Your task to perform on an android device: turn on translation in the chrome app Image 0: 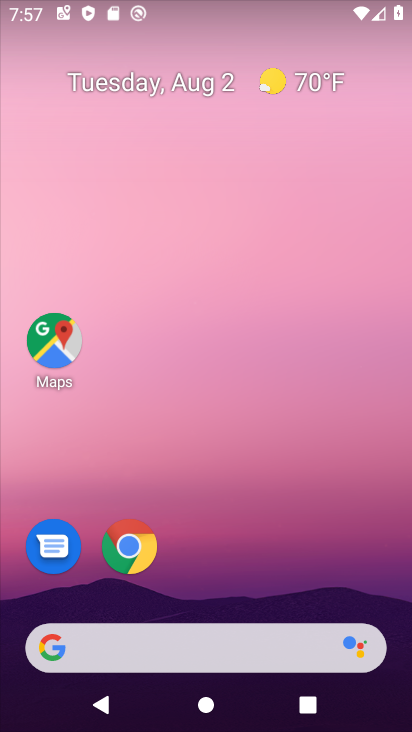
Step 0: click (135, 562)
Your task to perform on an android device: turn on translation in the chrome app Image 1: 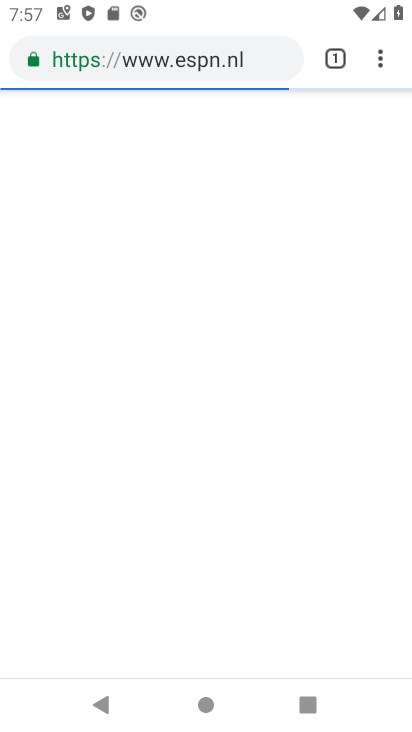
Step 1: click (382, 53)
Your task to perform on an android device: turn on translation in the chrome app Image 2: 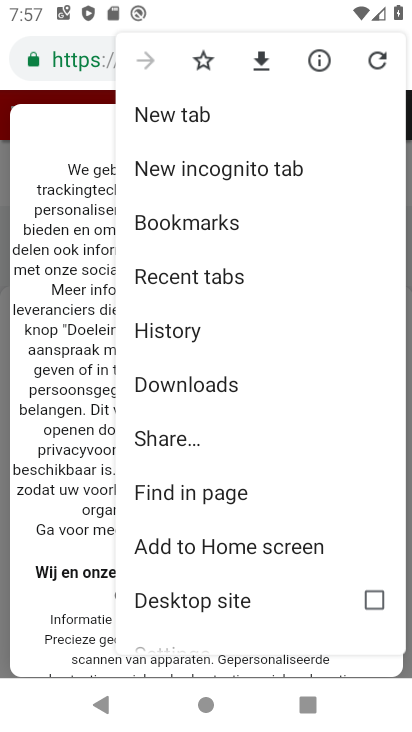
Step 2: drag from (218, 588) to (237, 286)
Your task to perform on an android device: turn on translation in the chrome app Image 3: 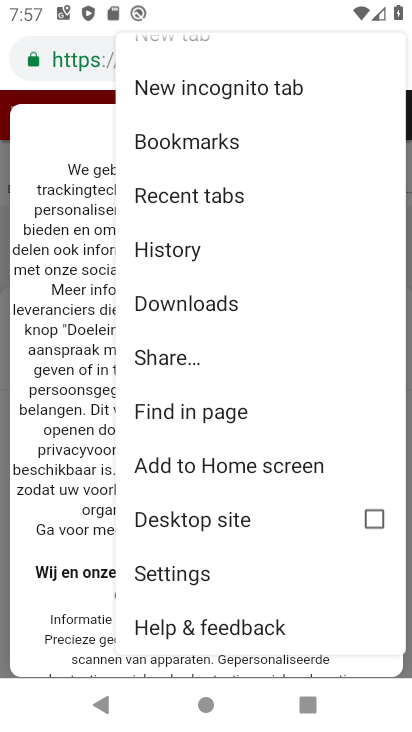
Step 3: click (201, 578)
Your task to perform on an android device: turn on translation in the chrome app Image 4: 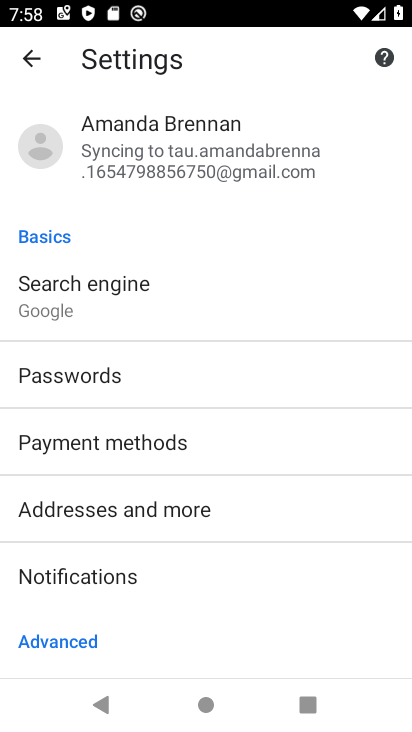
Step 4: drag from (117, 469) to (159, 220)
Your task to perform on an android device: turn on translation in the chrome app Image 5: 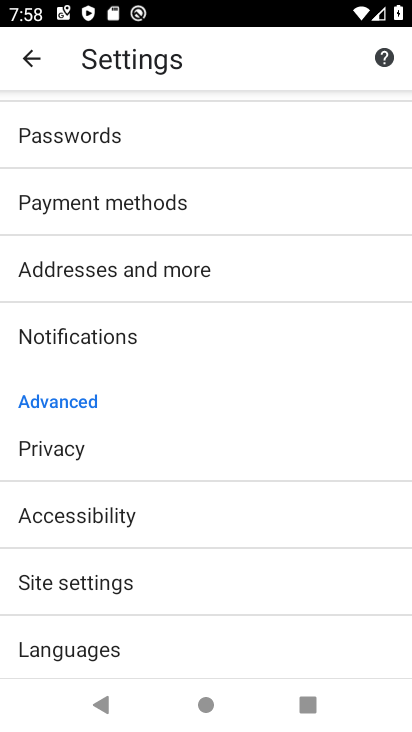
Step 5: drag from (121, 598) to (121, 463)
Your task to perform on an android device: turn on translation in the chrome app Image 6: 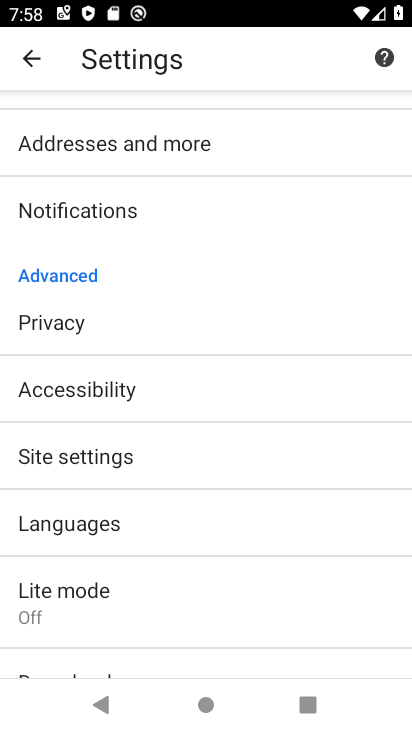
Step 6: click (76, 450)
Your task to perform on an android device: turn on translation in the chrome app Image 7: 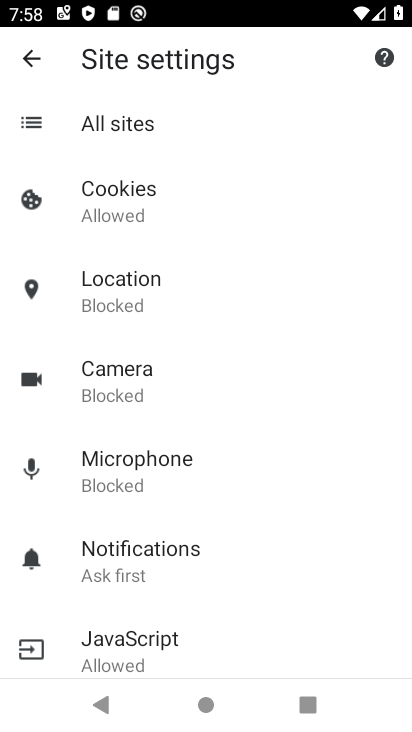
Step 7: click (134, 287)
Your task to perform on an android device: turn on translation in the chrome app Image 8: 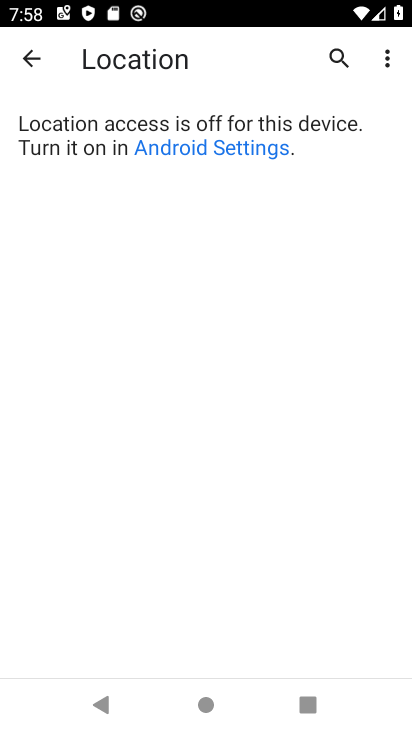
Step 8: click (192, 140)
Your task to perform on an android device: turn on translation in the chrome app Image 9: 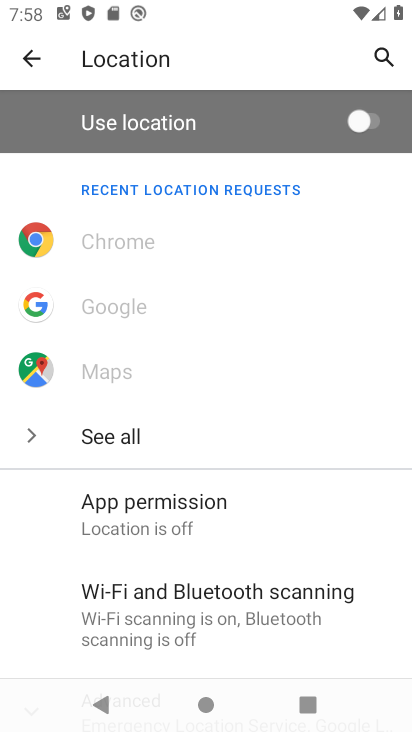
Step 9: drag from (367, 133) to (365, 302)
Your task to perform on an android device: turn on translation in the chrome app Image 10: 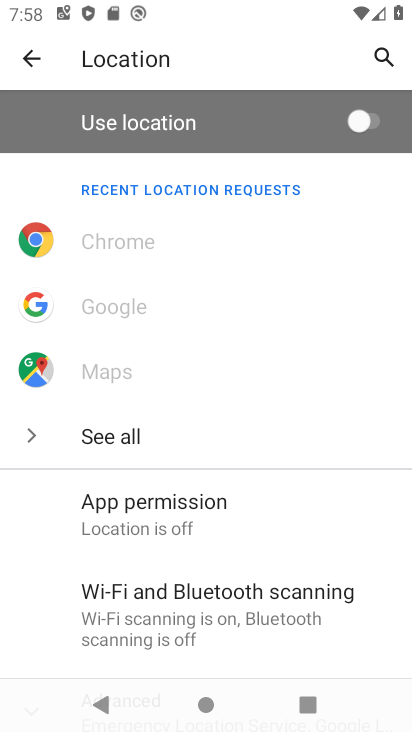
Step 10: click (386, 111)
Your task to perform on an android device: turn on translation in the chrome app Image 11: 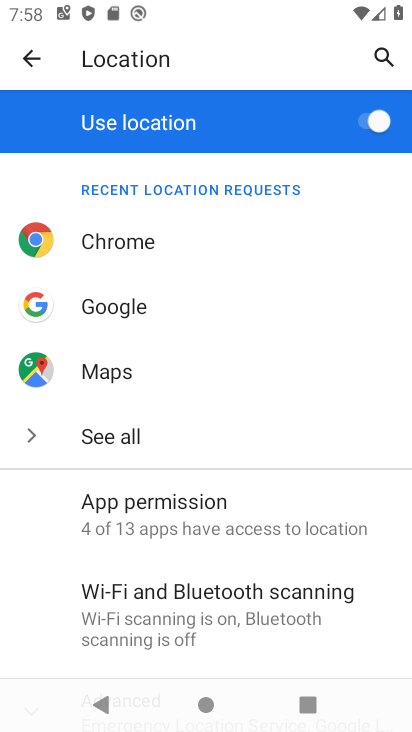
Step 11: task complete